Your task to perform on an android device: turn on the 12-hour format for clock Image 0: 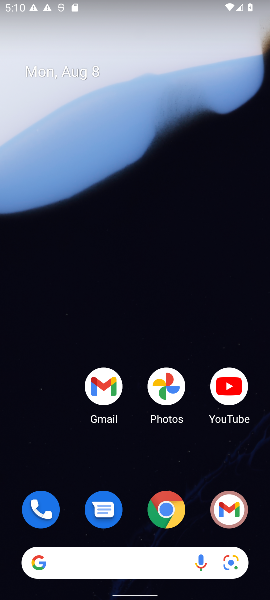
Step 0: drag from (135, 476) to (135, 104)
Your task to perform on an android device: turn on the 12-hour format for clock Image 1: 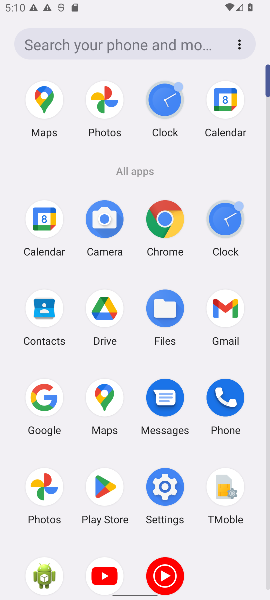
Step 1: click (225, 218)
Your task to perform on an android device: turn on the 12-hour format for clock Image 2: 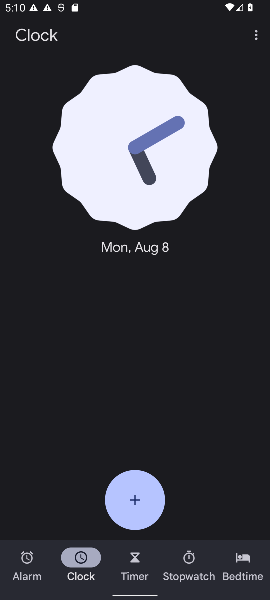
Step 2: click (257, 32)
Your task to perform on an android device: turn on the 12-hour format for clock Image 3: 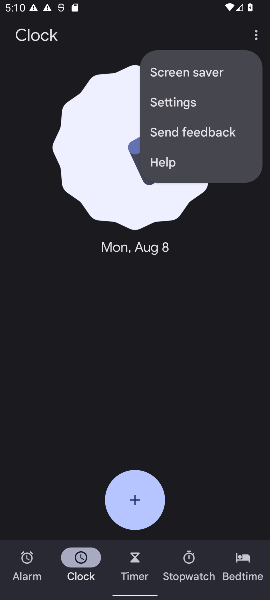
Step 3: click (176, 100)
Your task to perform on an android device: turn on the 12-hour format for clock Image 4: 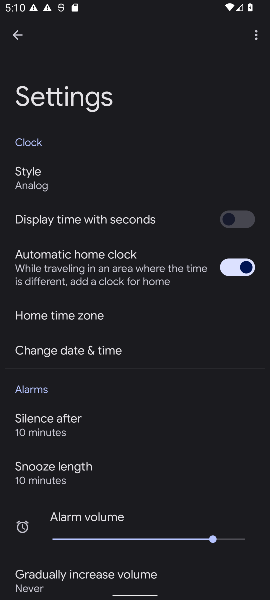
Step 4: click (84, 352)
Your task to perform on an android device: turn on the 12-hour format for clock Image 5: 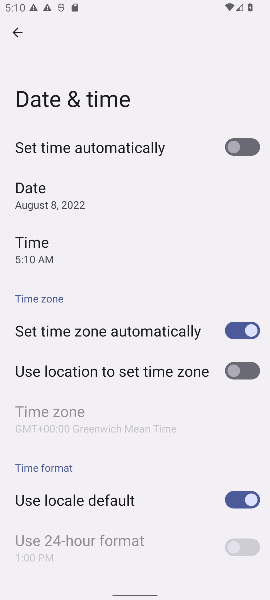
Step 5: task complete